Your task to perform on an android device: show emergency info Image 0: 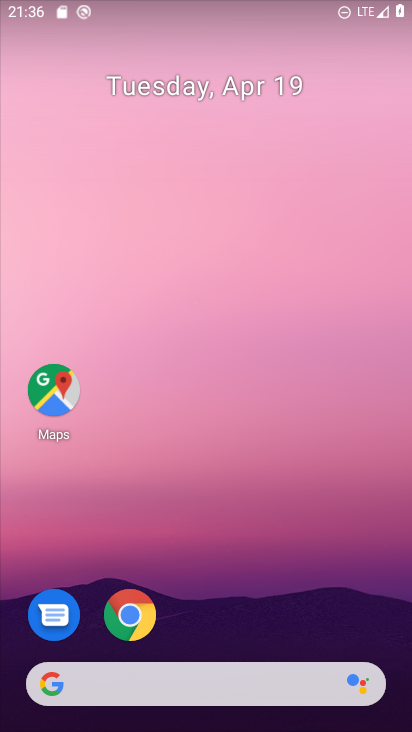
Step 0: drag from (162, 7) to (256, 593)
Your task to perform on an android device: show emergency info Image 1: 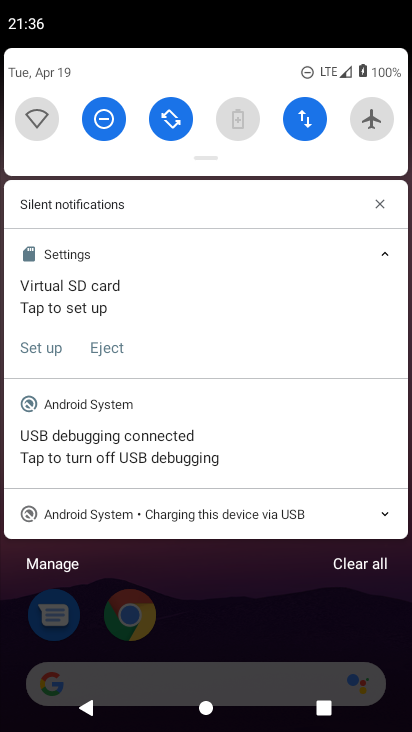
Step 1: drag from (245, 57) to (235, 677)
Your task to perform on an android device: show emergency info Image 2: 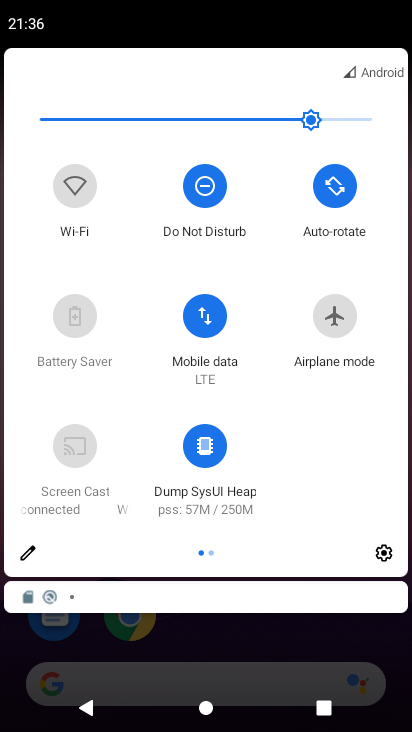
Step 2: click (379, 549)
Your task to perform on an android device: show emergency info Image 3: 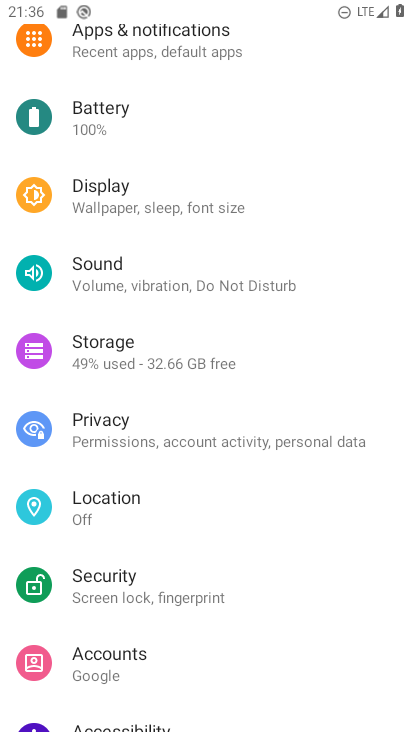
Step 3: drag from (112, 692) to (206, 180)
Your task to perform on an android device: show emergency info Image 4: 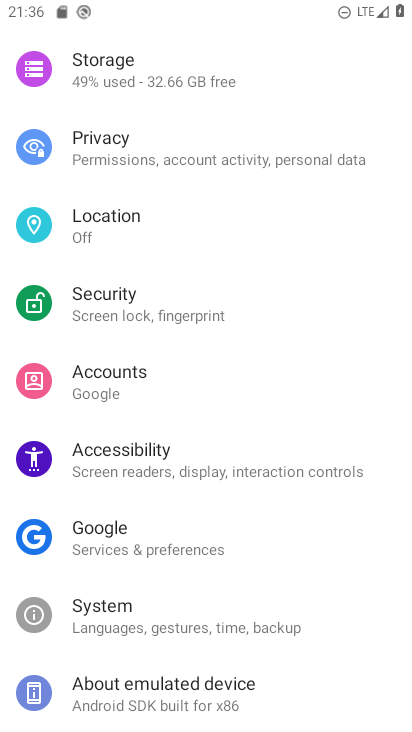
Step 4: click (196, 686)
Your task to perform on an android device: show emergency info Image 5: 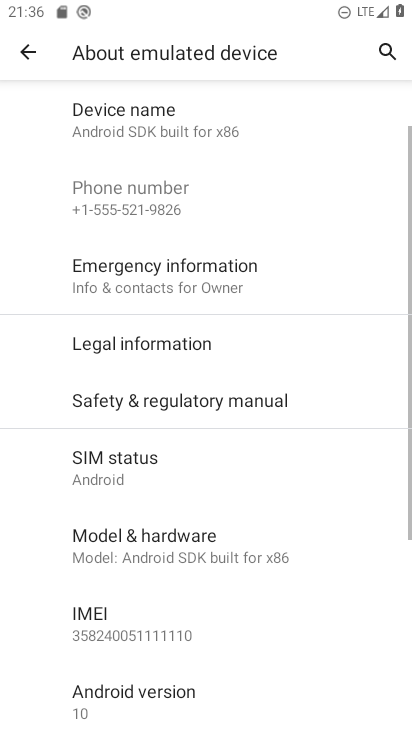
Step 5: click (178, 296)
Your task to perform on an android device: show emergency info Image 6: 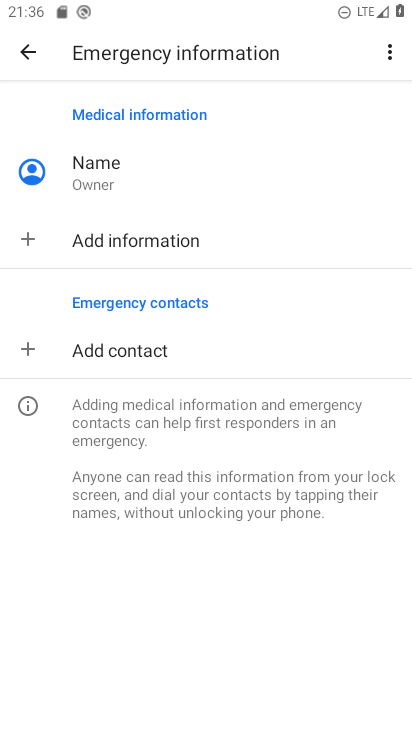
Step 6: task complete